Your task to perform on an android device: turn vacation reply on in the gmail app Image 0: 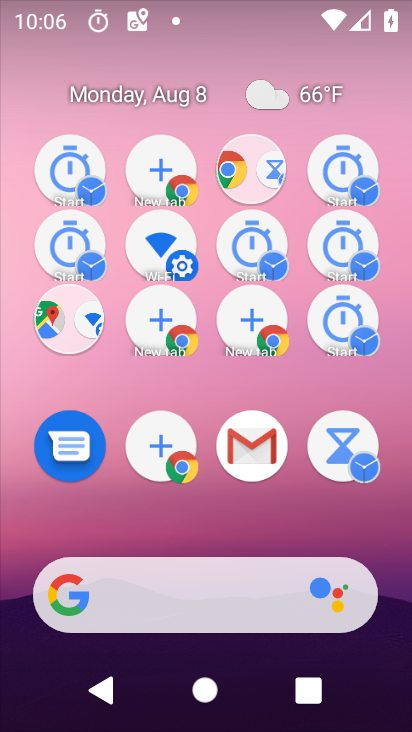
Step 0: press back button
Your task to perform on an android device: turn vacation reply on in the gmail app Image 1: 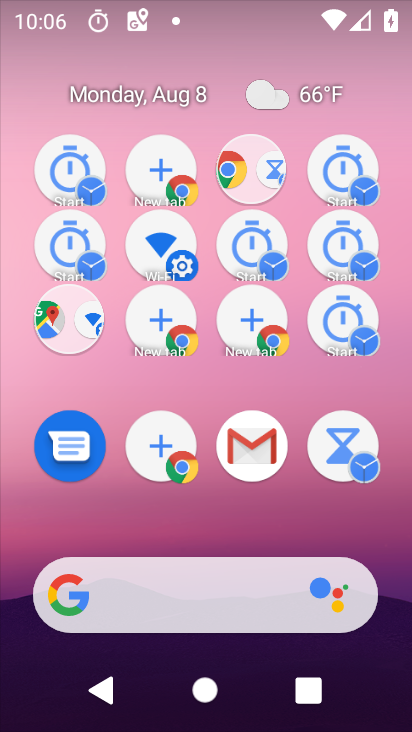
Step 1: press back button
Your task to perform on an android device: turn vacation reply on in the gmail app Image 2: 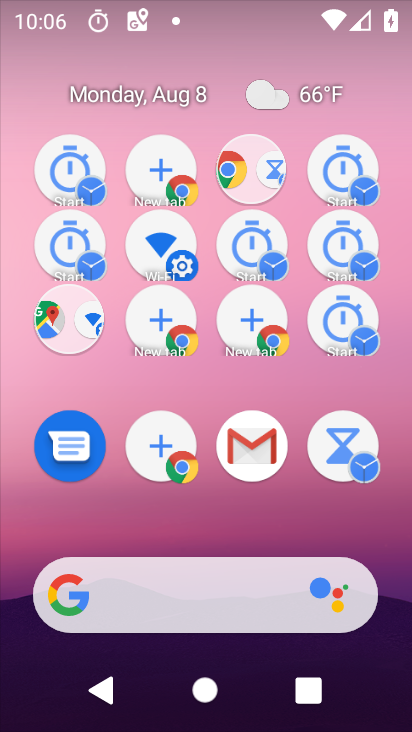
Step 2: drag from (242, 588) to (224, 263)
Your task to perform on an android device: turn vacation reply on in the gmail app Image 3: 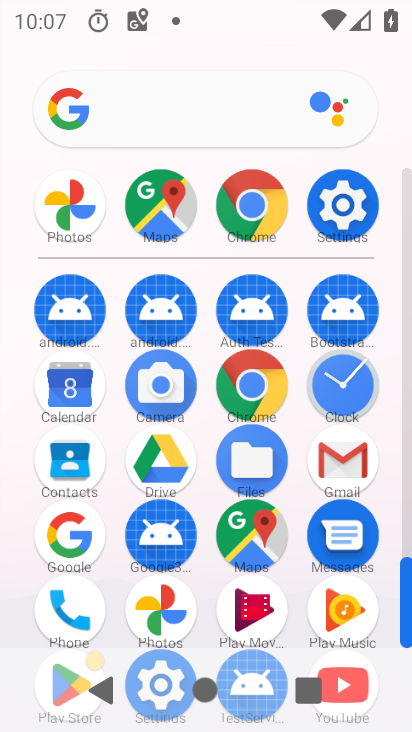
Step 3: click (346, 450)
Your task to perform on an android device: turn vacation reply on in the gmail app Image 4: 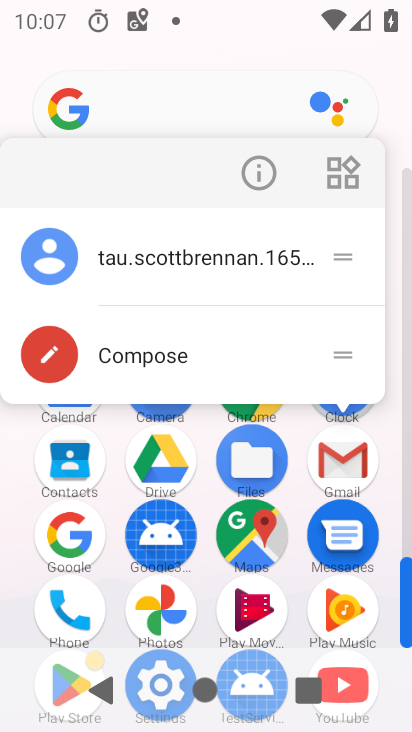
Step 4: click (339, 462)
Your task to perform on an android device: turn vacation reply on in the gmail app Image 5: 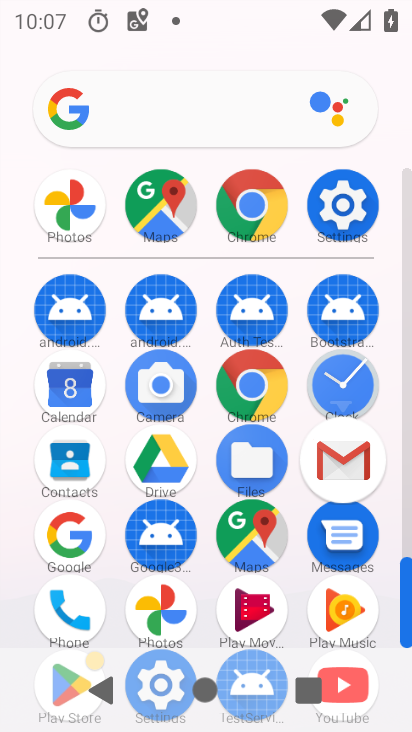
Step 5: click (339, 462)
Your task to perform on an android device: turn vacation reply on in the gmail app Image 6: 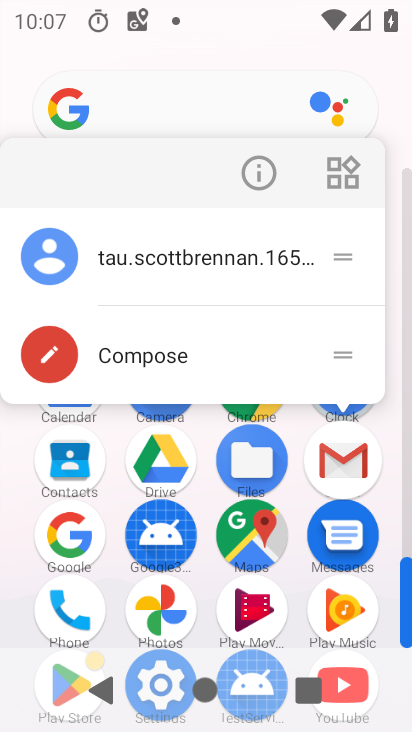
Step 6: click (339, 462)
Your task to perform on an android device: turn vacation reply on in the gmail app Image 7: 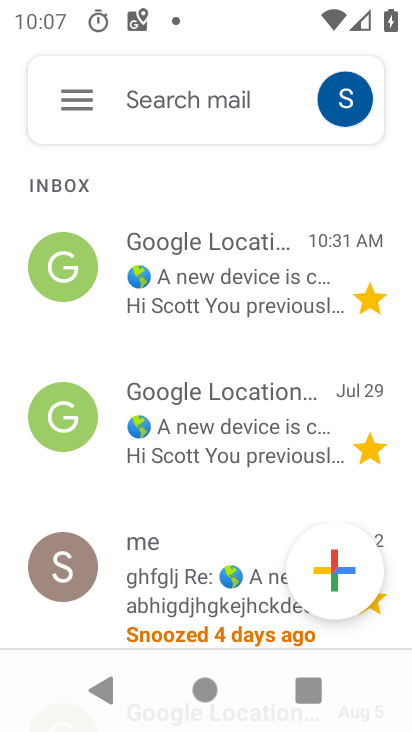
Step 7: click (68, 102)
Your task to perform on an android device: turn vacation reply on in the gmail app Image 8: 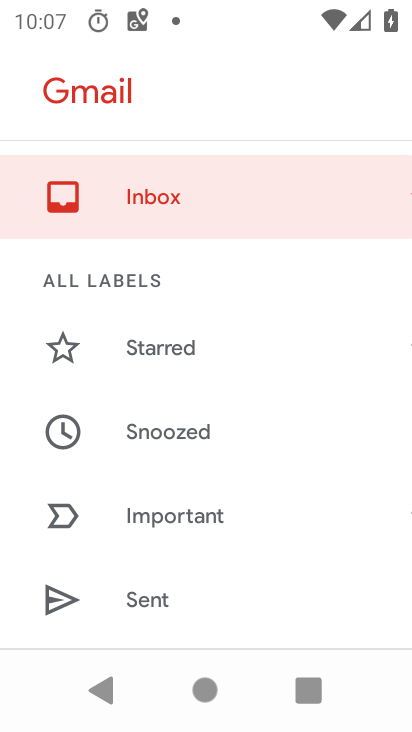
Step 8: drag from (180, 411) to (183, 235)
Your task to perform on an android device: turn vacation reply on in the gmail app Image 9: 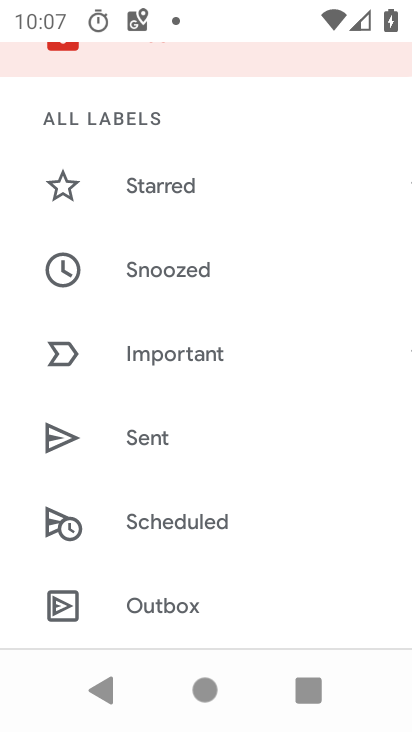
Step 9: drag from (222, 451) to (229, 258)
Your task to perform on an android device: turn vacation reply on in the gmail app Image 10: 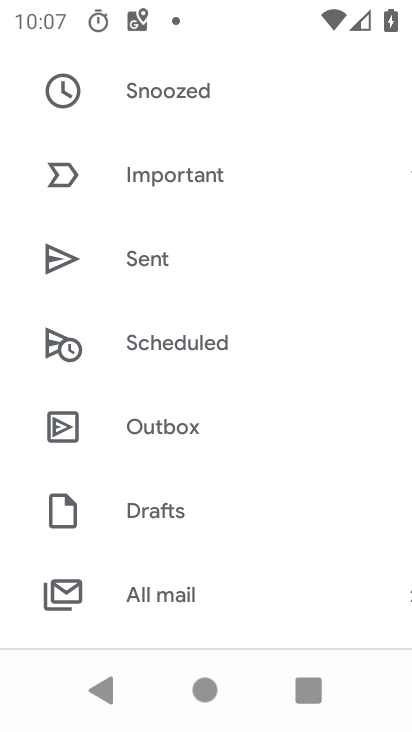
Step 10: drag from (251, 530) to (242, 283)
Your task to perform on an android device: turn vacation reply on in the gmail app Image 11: 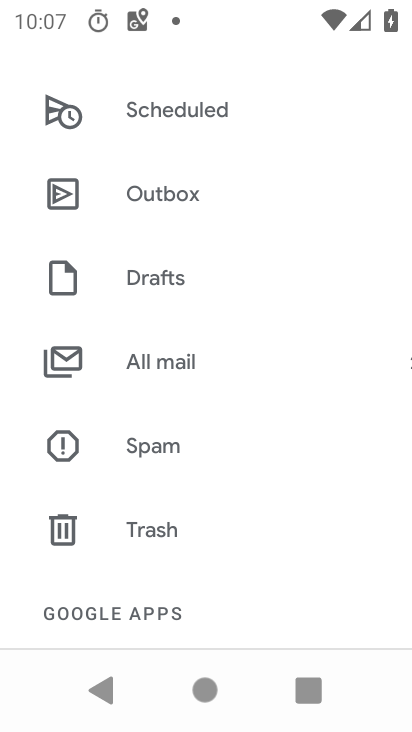
Step 11: drag from (159, 290) to (159, 149)
Your task to perform on an android device: turn vacation reply on in the gmail app Image 12: 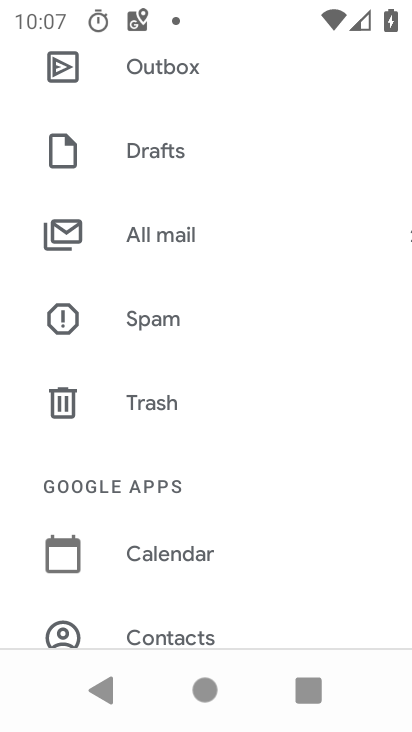
Step 12: drag from (187, 376) to (199, 156)
Your task to perform on an android device: turn vacation reply on in the gmail app Image 13: 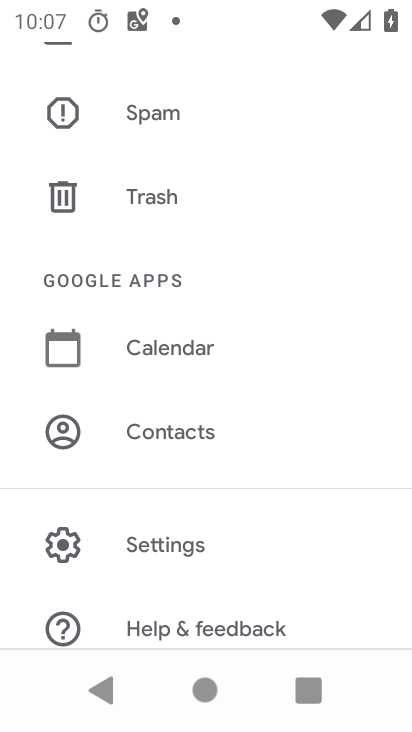
Step 13: drag from (212, 461) to (207, 172)
Your task to perform on an android device: turn vacation reply on in the gmail app Image 14: 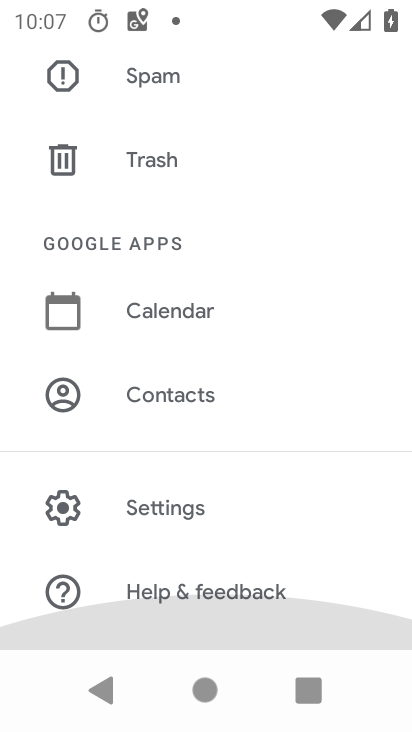
Step 14: drag from (194, 454) to (180, 223)
Your task to perform on an android device: turn vacation reply on in the gmail app Image 15: 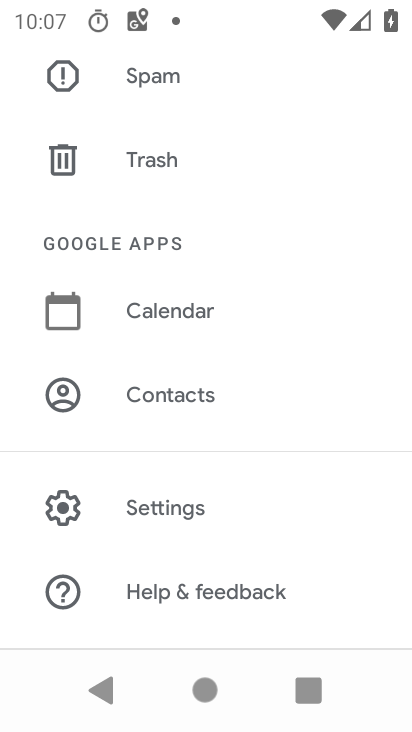
Step 15: click (161, 509)
Your task to perform on an android device: turn vacation reply on in the gmail app Image 16: 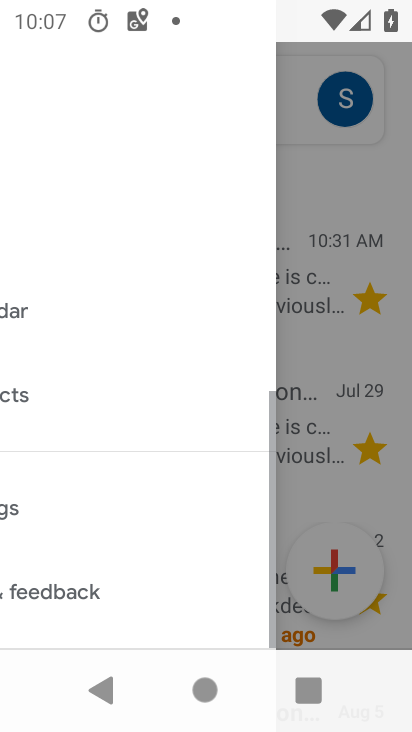
Step 16: click (160, 508)
Your task to perform on an android device: turn vacation reply on in the gmail app Image 17: 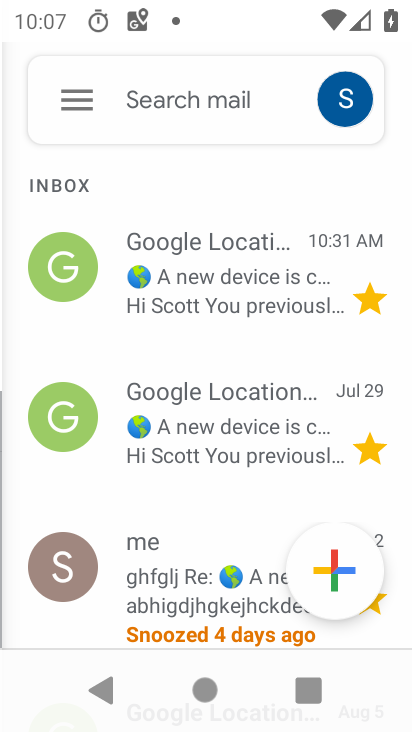
Step 17: click (161, 507)
Your task to perform on an android device: turn vacation reply on in the gmail app Image 18: 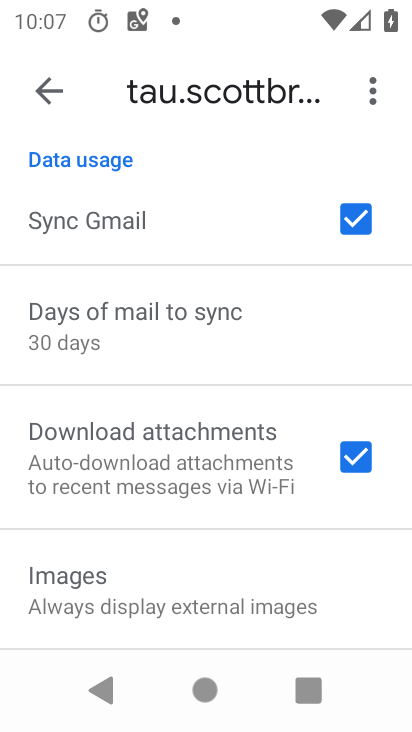
Step 18: drag from (187, 310) to (154, 51)
Your task to perform on an android device: turn vacation reply on in the gmail app Image 19: 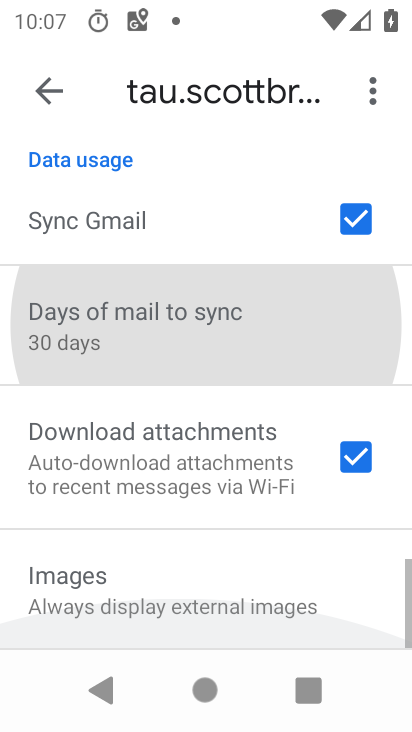
Step 19: drag from (177, 422) to (168, 101)
Your task to perform on an android device: turn vacation reply on in the gmail app Image 20: 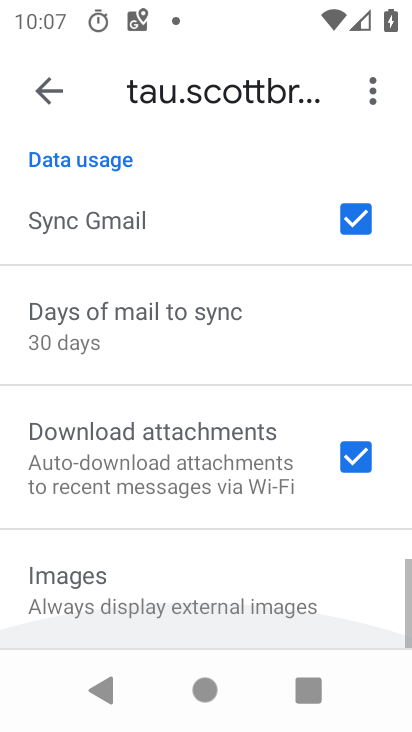
Step 20: drag from (155, 433) to (159, 145)
Your task to perform on an android device: turn vacation reply on in the gmail app Image 21: 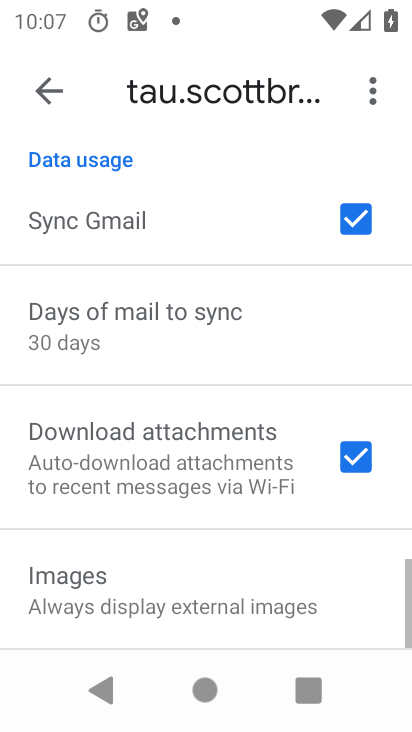
Step 21: drag from (98, 403) to (98, 213)
Your task to perform on an android device: turn vacation reply on in the gmail app Image 22: 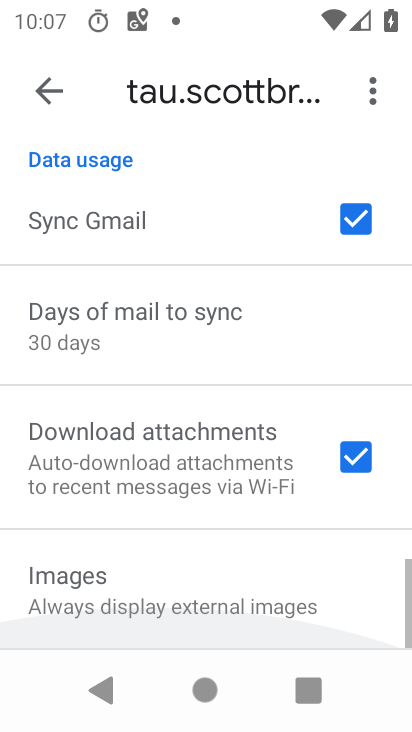
Step 22: drag from (167, 477) to (158, 209)
Your task to perform on an android device: turn vacation reply on in the gmail app Image 23: 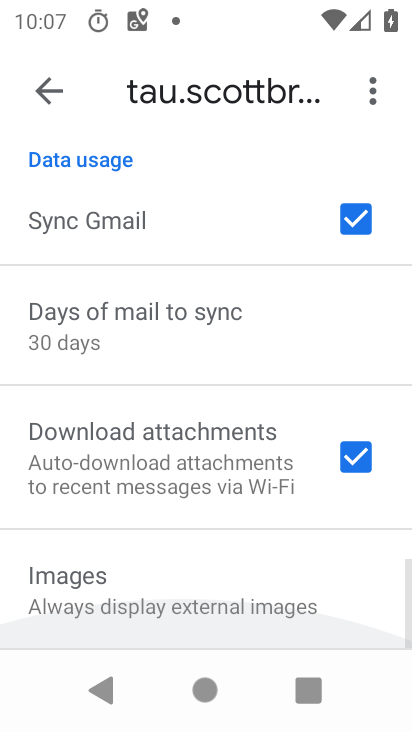
Step 23: drag from (194, 412) to (185, 149)
Your task to perform on an android device: turn vacation reply on in the gmail app Image 24: 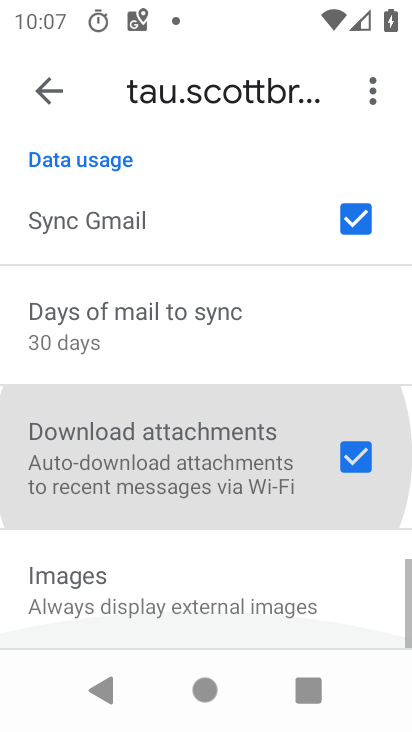
Step 24: drag from (177, 363) to (143, 178)
Your task to perform on an android device: turn vacation reply on in the gmail app Image 25: 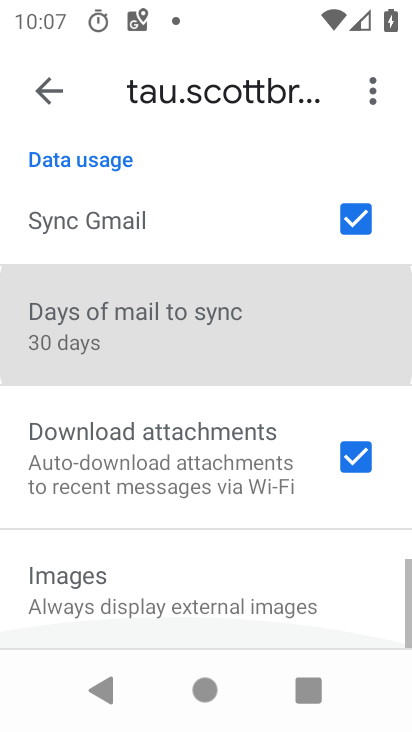
Step 25: drag from (161, 464) to (157, 225)
Your task to perform on an android device: turn vacation reply on in the gmail app Image 26: 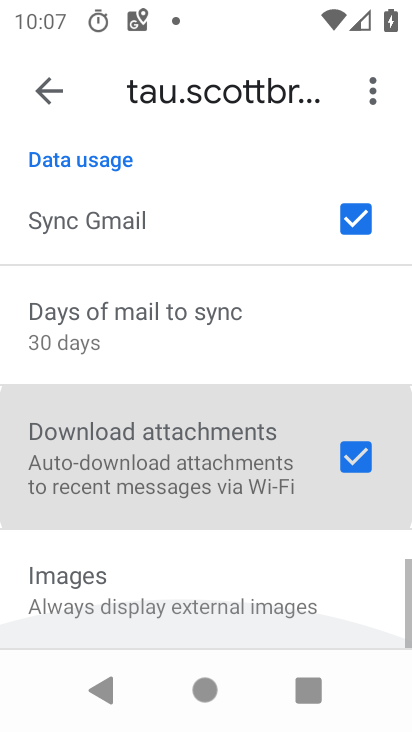
Step 26: drag from (205, 556) to (191, 257)
Your task to perform on an android device: turn vacation reply on in the gmail app Image 27: 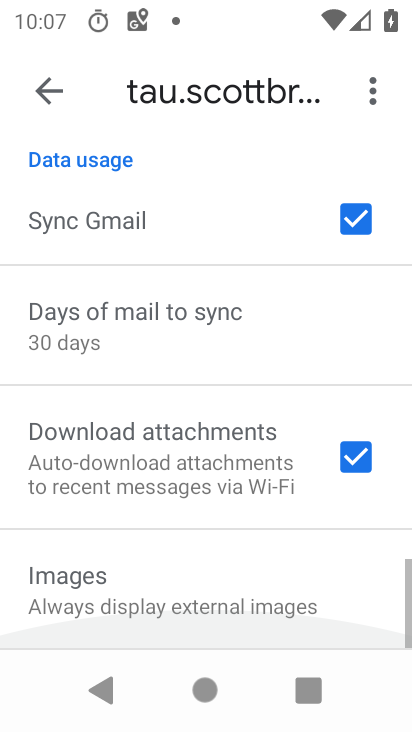
Step 27: drag from (193, 459) to (153, 256)
Your task to perform on an android device: turn vacation reply on in the gmail app Image 28: 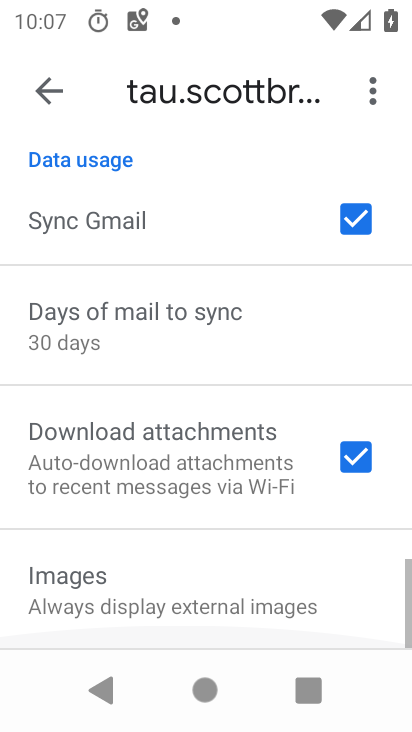
Step 28: drag from (148, 607) to (122, 295)
Your task to perform on an android device: turn vacation reply on in the gmail app Image 29: 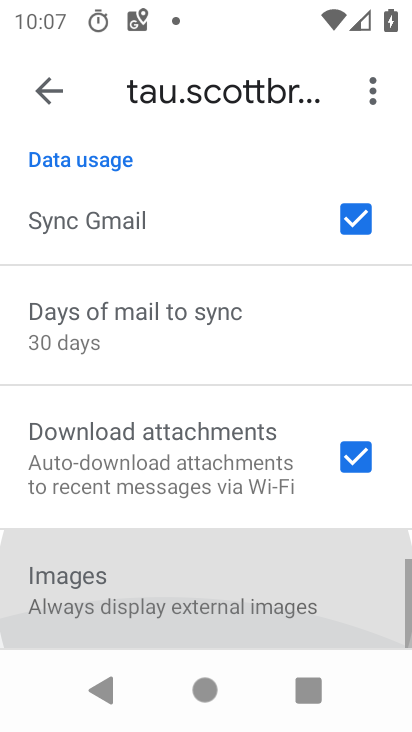
Step 29: drag from (143, 481) to (121, 243)
Your task to perform on an android device: turn vacation reply on in the gmail app Image 30: 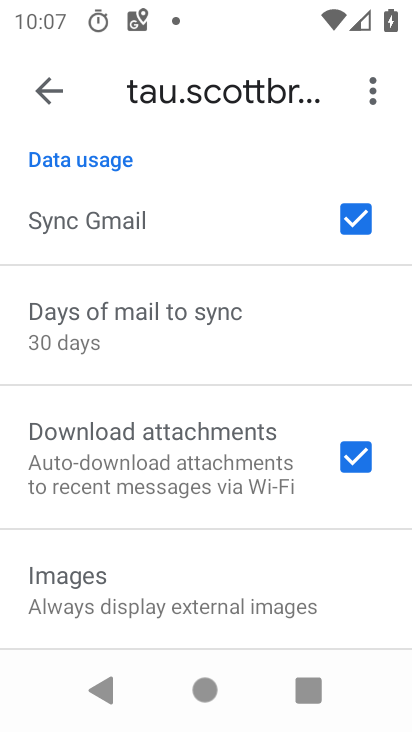
Step 30: click (141, 321)
Your task to perform on an android device: turn vacation reply on in the gmail app Image 31: 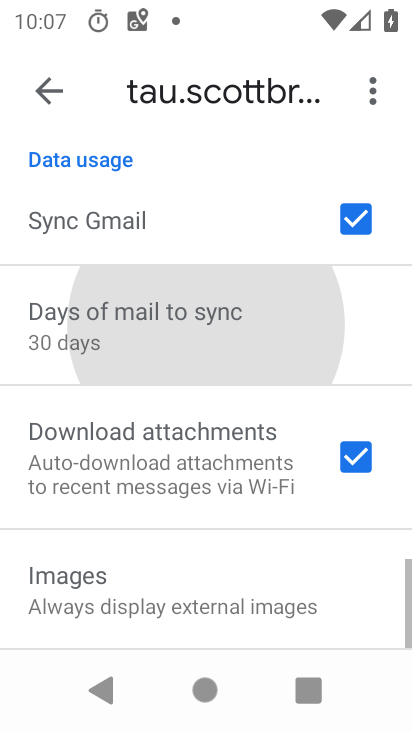
Step 31: drag from (150, 345) to (154, 196)
Your task to perform on an android device: turn vacation reply on in the gmail app Image 32: 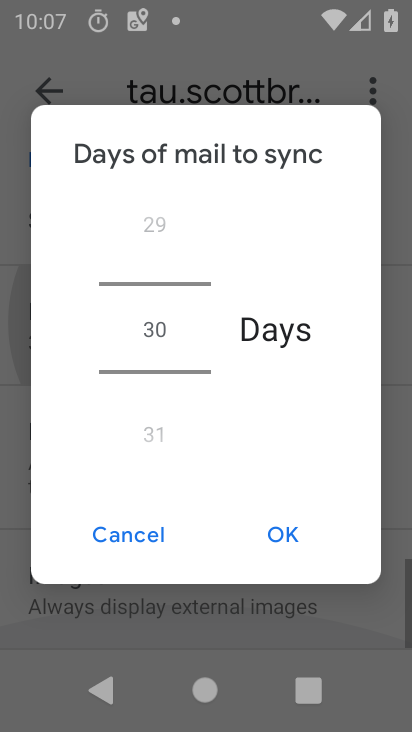
Step 32: drag from (185, 234) to (177, 179)
Your task to perform on an android device: turn vacation reply on in the gmail app Image 33: 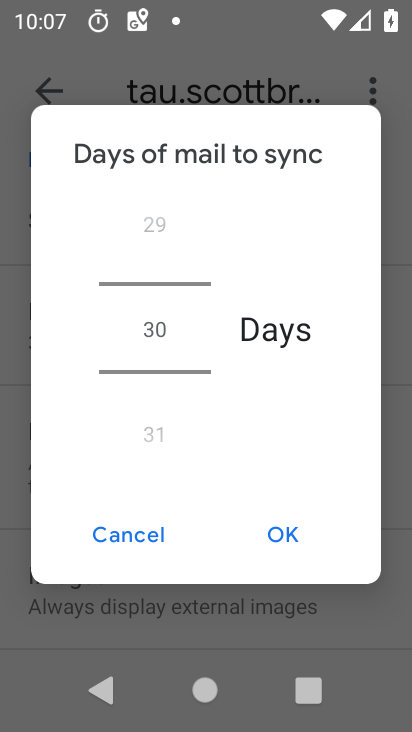
Step 33: click (116, 526)
Your task to perform on an android device: turn vacation reply on in the gmail app Image 34: 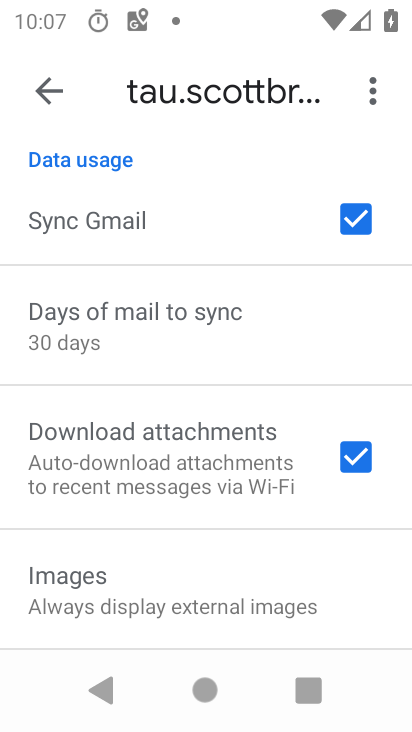
Step 34: click (117, 525)
Your task to perform on an android device: turn vacation reply on in the gmail app Image 35: 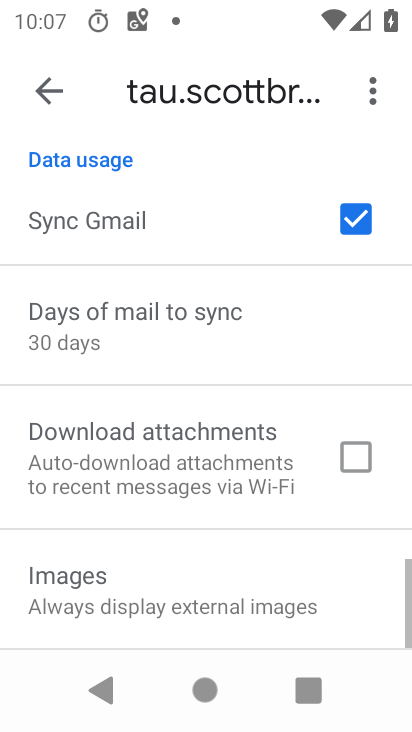
Step 35: click (45, 89)
Your task to perform on an android device: turn vacation reply on in the gmail app Image 36: 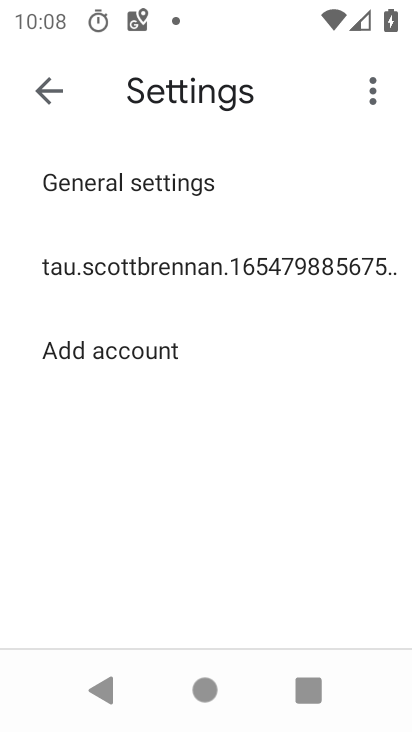
Step 36: click (140, 269)
Your task to perform on an android device: turn vacation reply on in the gmail app Image 37: 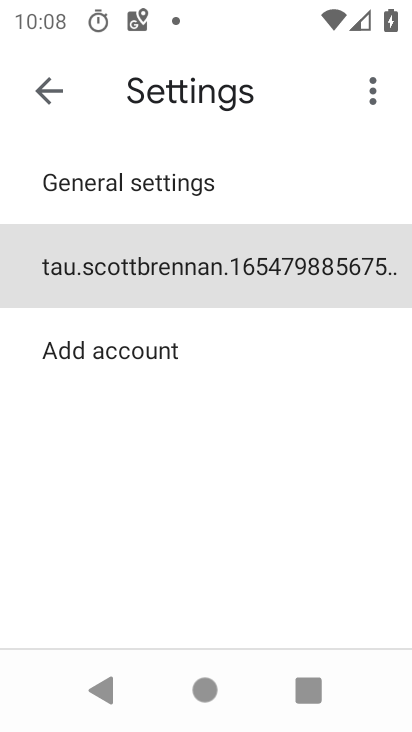
Step 37: click (143, 272)
Your task to perform on an android device: turn vacation reply on in the gmail app Image 38: 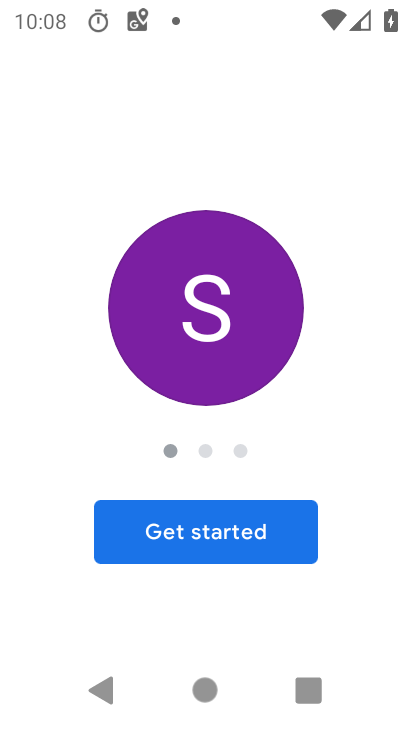
Step 38: press back button
Your task to perform on an android device: turn vacation reply on in the gmail app Image 39: 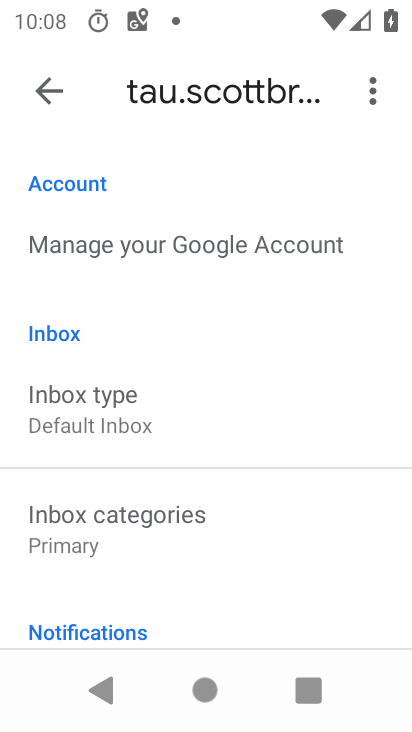
Step 39: drag from (105, 458) to (101, 296)
Your task to perform on an android device: turn vacation reply on in the gmail app Image 40: 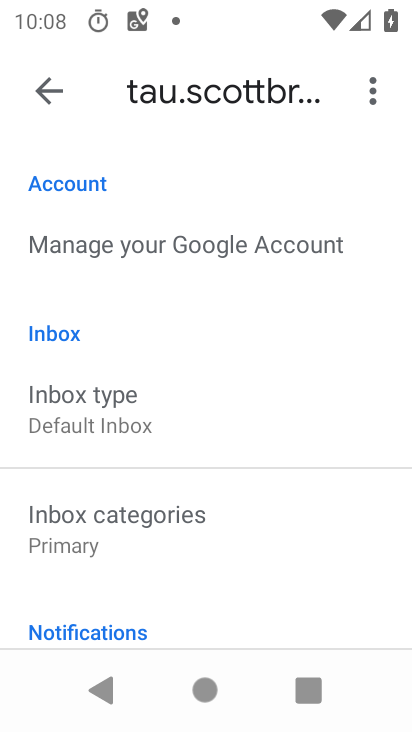
Step 40: drag from (127, 269) to (110, 329)
Your task to perform on an android device: turn vacation reply on in the gmail app Image 41: 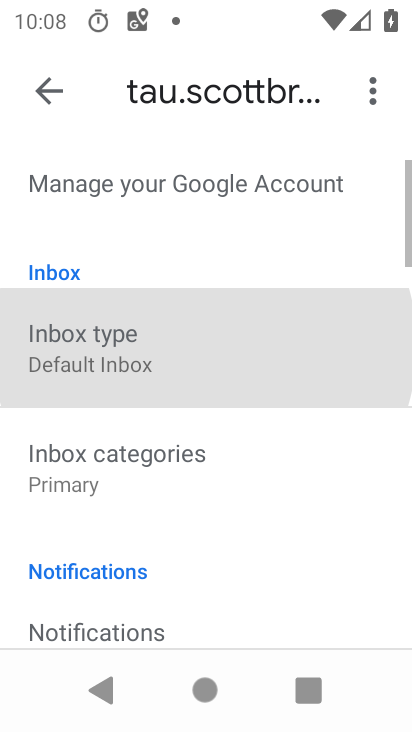
Step 41: drag from (174, 549) to (152, 317)
Your task to perform on an android device: turn vacation reply on in the gmail app Image 42: 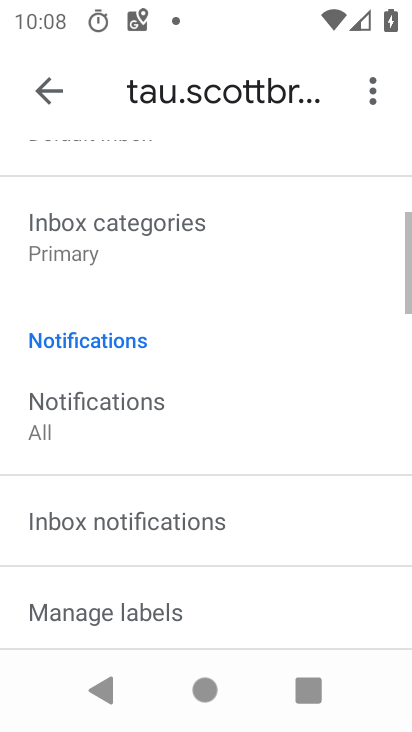
Step 42: drag from (153, 532) to (100, 257)
Your task to perform on an android device: turn vacation reply on in the gmail app Image 43: 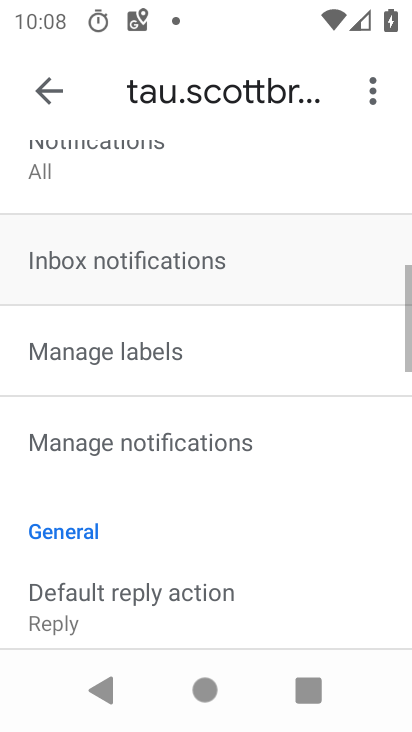
Step 43: drag from (144, 414) to (123, 263)
Your task to perform on an android device: turn vacation reply on in the gmail app Image 44: 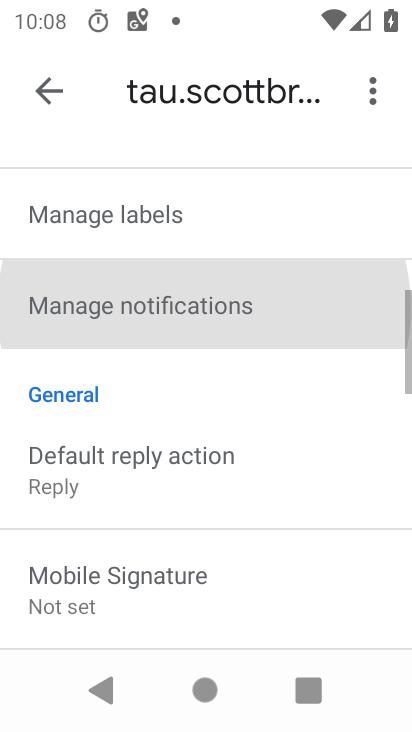
Step 44: drag from (186, 507) to (161, 267)
Your task to perform on an android device: turn vacation reply on in the gmail app Image 45: 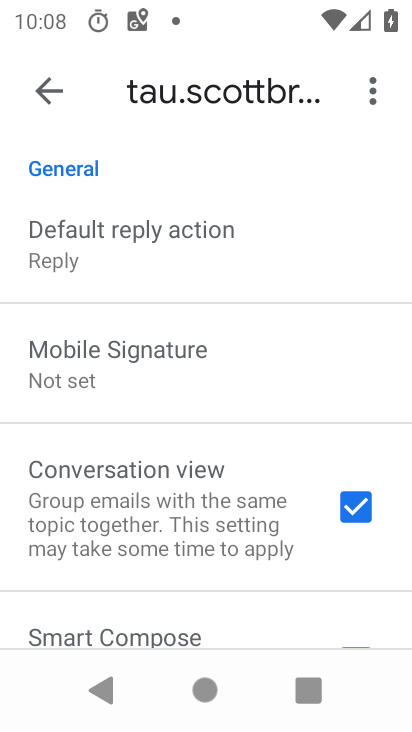
Step 45: drag from (138, 501) to (136, 371)
Your task to perform on an android device: turn vacation reply on in the gmail app Image 46: 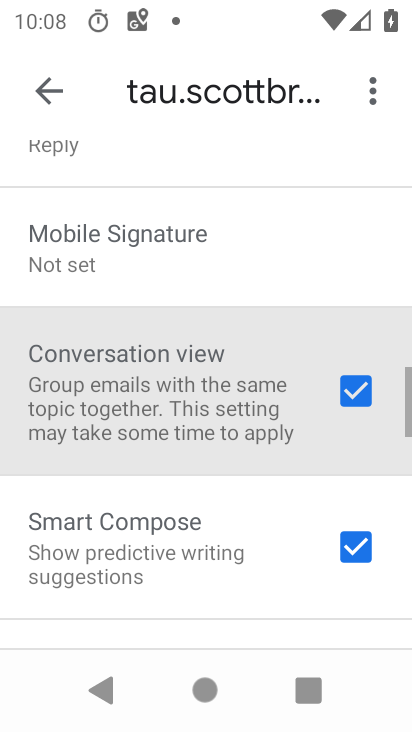
Step 46: click (168, 390)
Your task to perform on an android device: turn vacation reply on in the gmail app Image 47: 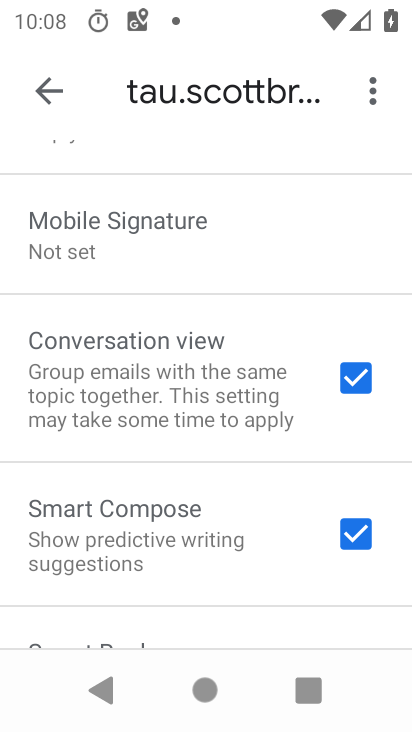
Step 47: drag from (172, 488) to (174, 356)
Your task to perform on an android device: turn vacation reply on in the gmail app Image 48: 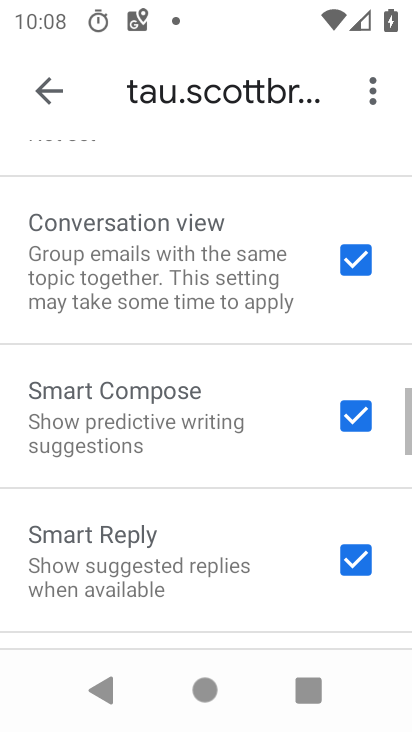
Step 48: drag from (207, 523) to (184, 298)
Your task to perform on an android device: turn vacation reply on in the gmail app Image 49: 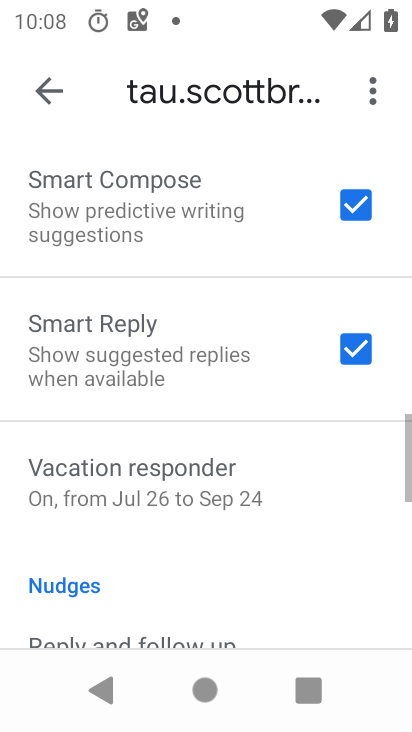
Step 49: click (209, 448)
Your task to perform on an android device: turn vacation reply on in the gmail app Image 50: 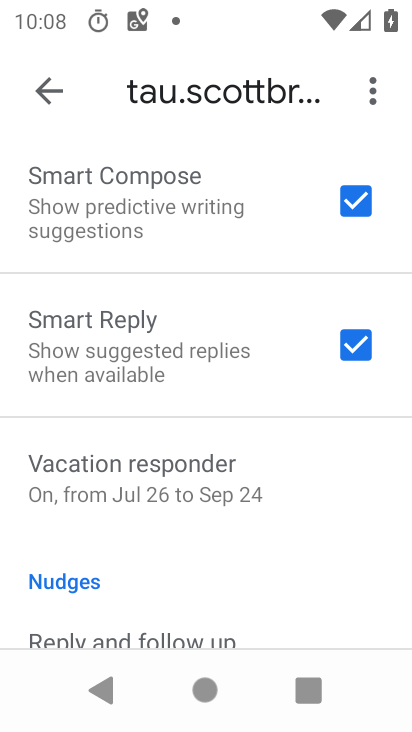
Step 50: click (121, 474)
Your task to perform on an android device: turn vacation reply on in the gmail app Image 51: 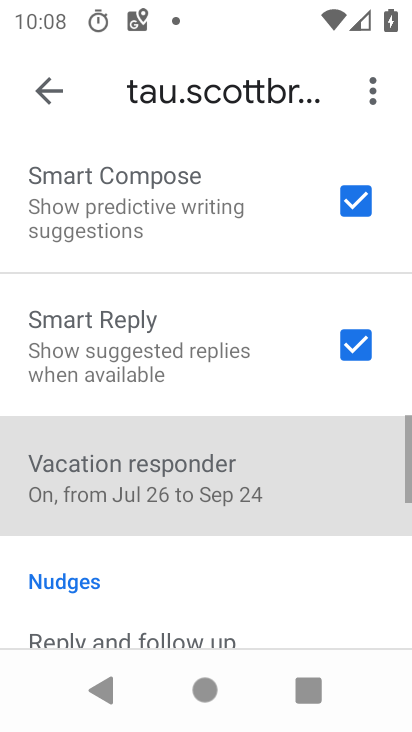
Step 51: click (121, 474)
Your task to perform on an android device: turn vacation reply on in the gmail app Image 52: 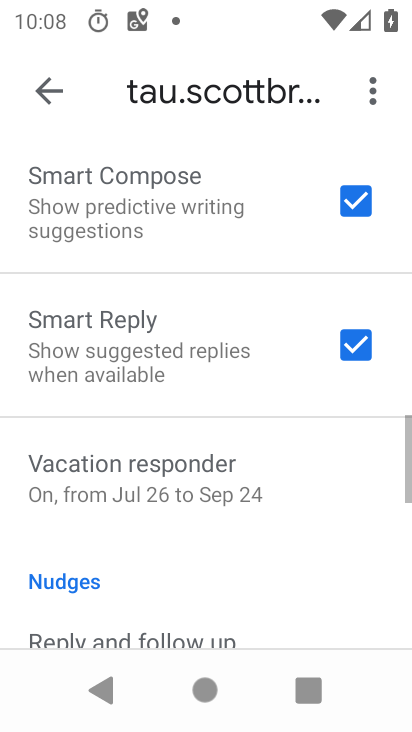
Step 52: click (121, 474)
Your task to perform on an android device: turn vacation reply on in the gmail app Image 53: 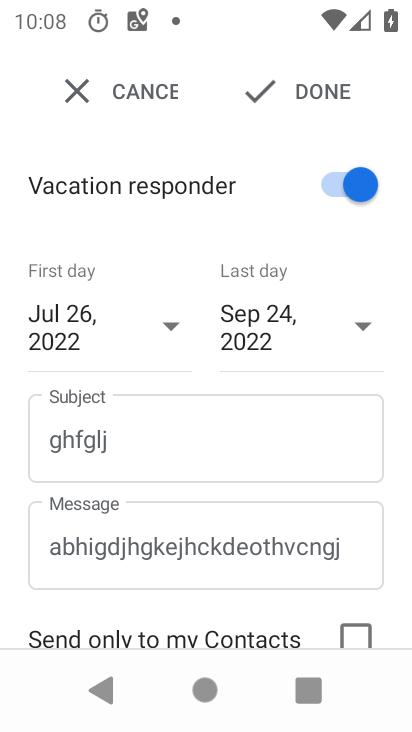
Step 53: task complete